Your task to perform on an android device: turn off notifications settings in the gmail app Image 0: 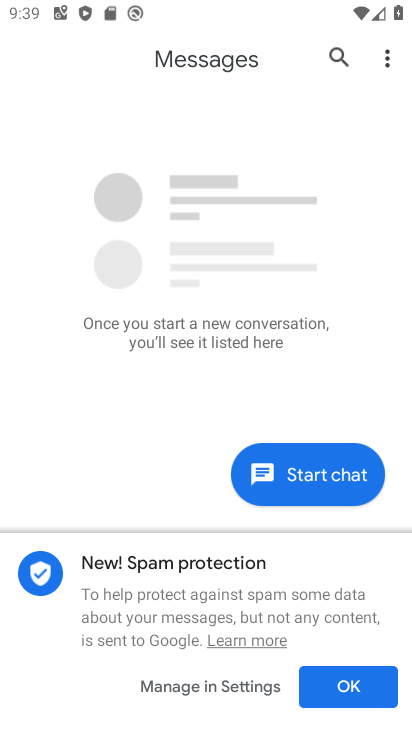
Step 0: press home button
Your task to perform on an android device: turn off notifications settings in the gmail app Image 1: 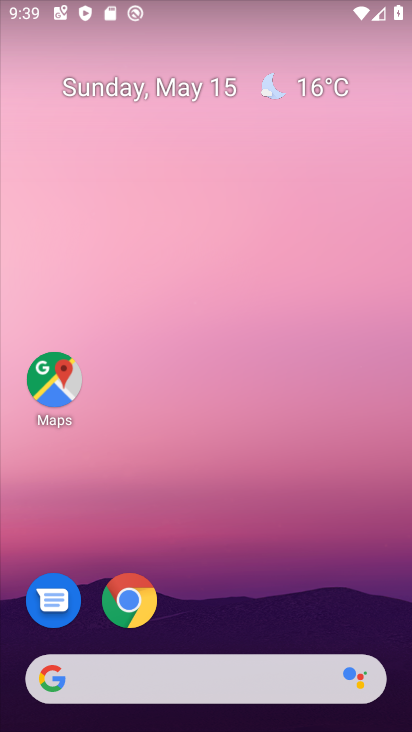
Step 1: drag from (199, 654) to (154, 71)
Your task to perform on an android device: turn off notifications settings in the gmail app Image 2: 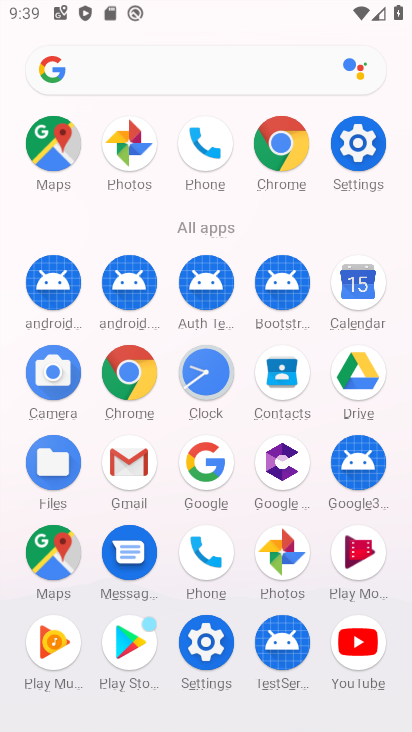
Step 2: click (130, 467)
Your task to perform on an android device: turn off notifications settings in the gmail app Image 3: 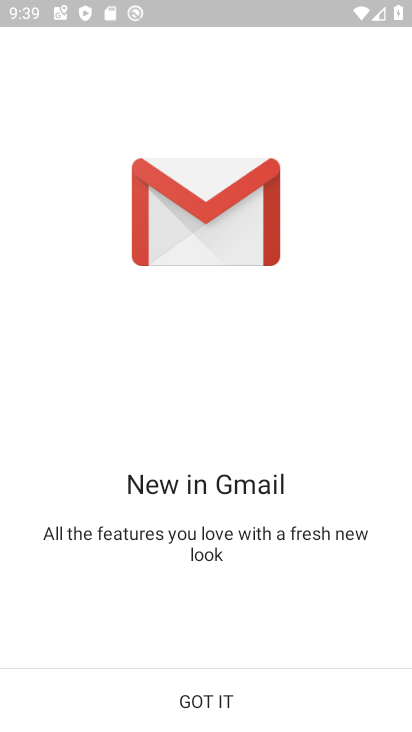
Step 3: click (215, 711)
Your task to perform on an android device: turn off notifications settings in the gmail app Image 4: 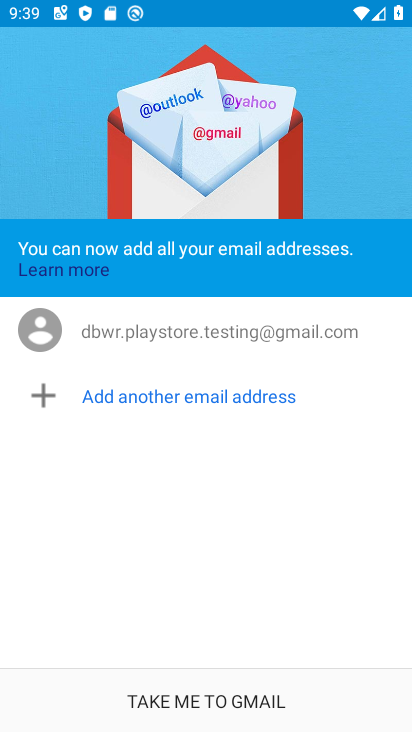
Step 4: click (213, 698)
Your task to perform on an android device: turn off notifications settings in the gmail app Image 5: 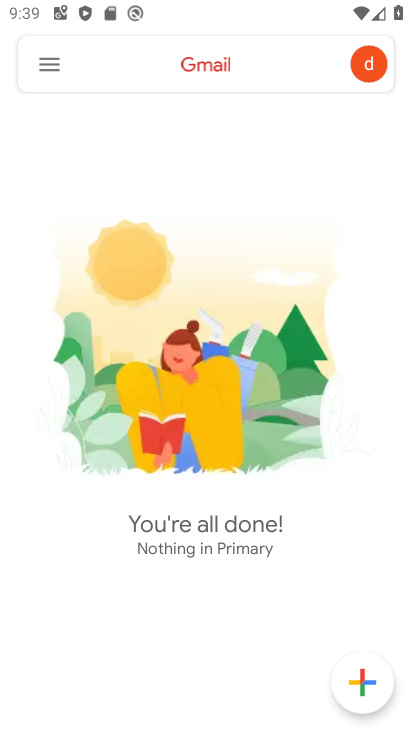
Step 5: click (46, 68)
Your task to perform on an android device: turn off notifications settings in the gmail app Image 6: 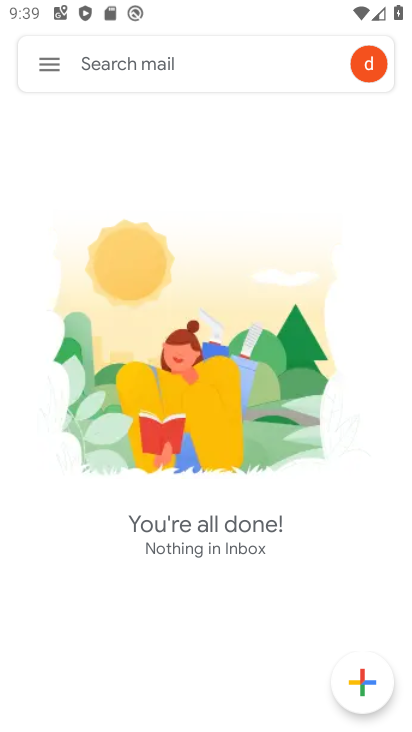
Step 6: click (48, 51)
Your task to perform on an android device: turn off notifications settings in the gmail app Image 7: 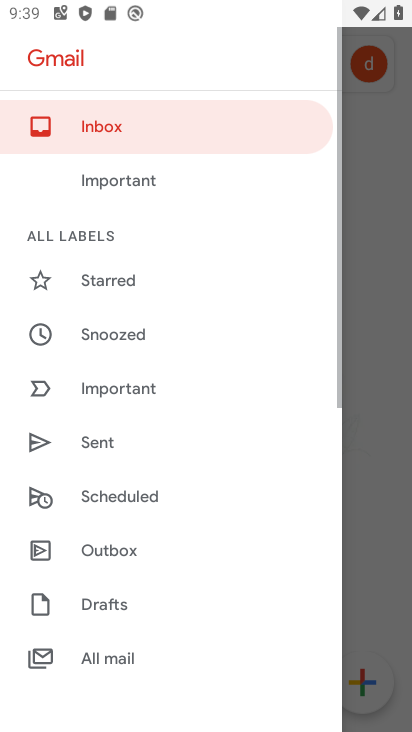
Step 7: drag from (130, 588) to (99, 142)
Your task to perform on an android device: turn off notifications settings in the gmail app Image 8: 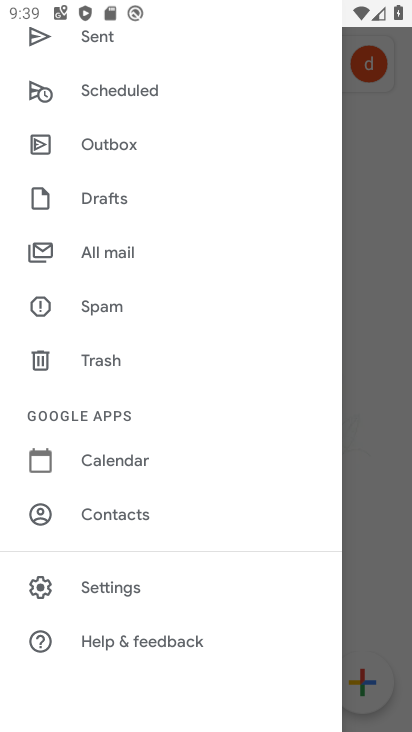
Step 8: click (92, 594)
Your task to perform on an android device: turn off notifications settings in the gmail app Image 9: 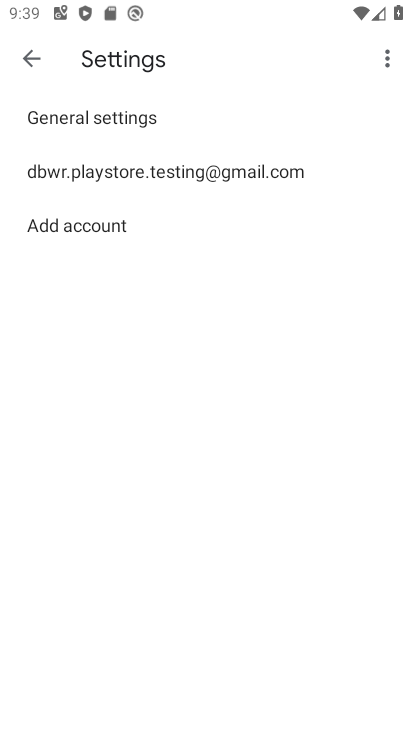
Step 9: click (84, 124)
Your task to perform on an android device: turn off notifications settings in the gmail app Image 10: 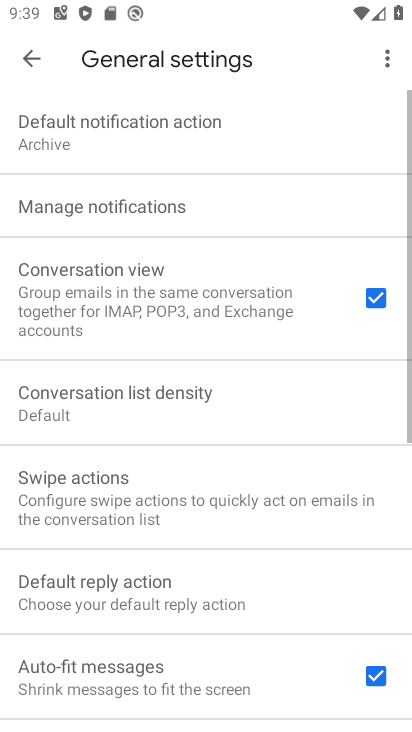
Step 10: click (188, 214)
Your task to perform on an android device: turn off notifications settings in the gmail app Image 11: 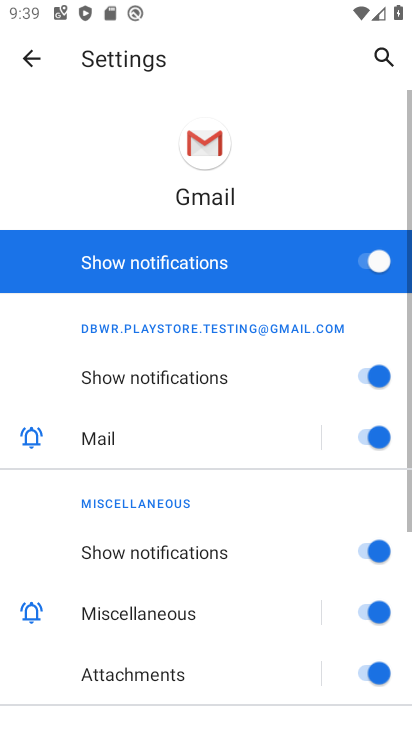
Step 11: click (351, 261)
Your task to perform on an android device: turn off notifications settings in the gmail app Image 12: 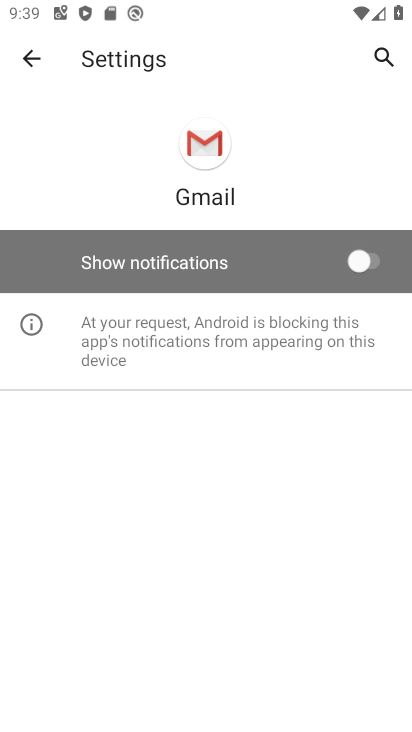
Step 12: task complete